Your task to perform on an android device: Open the calendar and show me this week's events? Image 0: 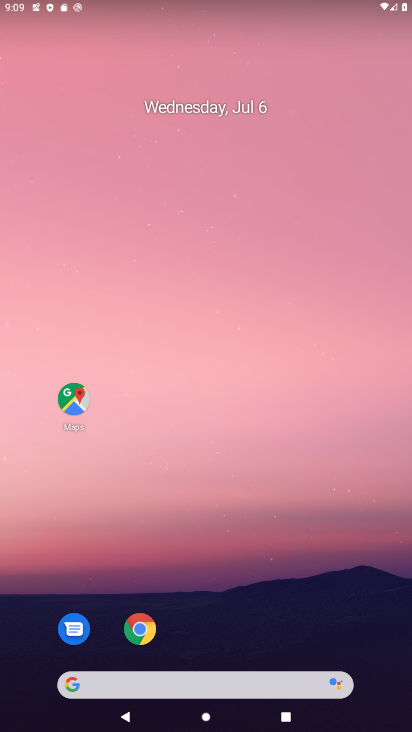
Step 0: click (171, 171)
Your task to perform on an android device: Open the calendar and show me this week's events? Image 1: 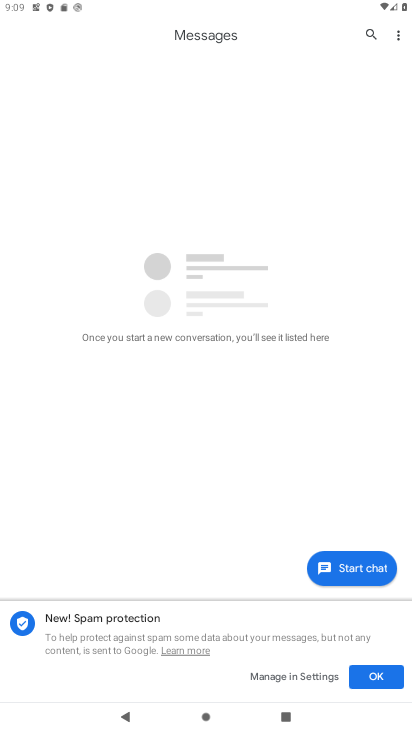
Step 1: press home button
Your task to perform on an android device: Open the calendar and show me this week's events? Image 2: 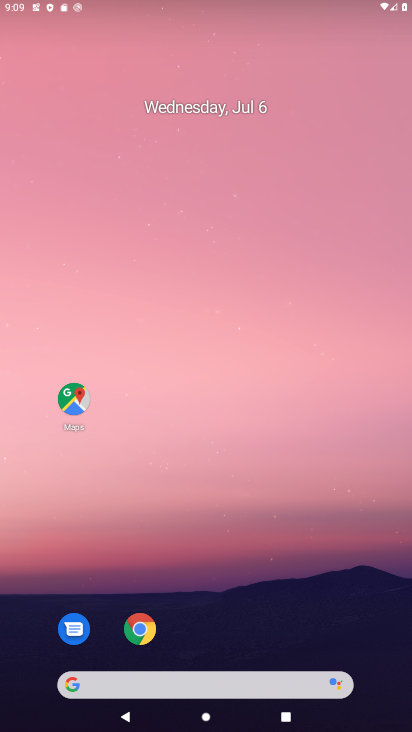
Step 2: drag from (227, 628) to (206, 154)
Your task to perform on an android device: Open the calendar and show me this week's events? Image 3: 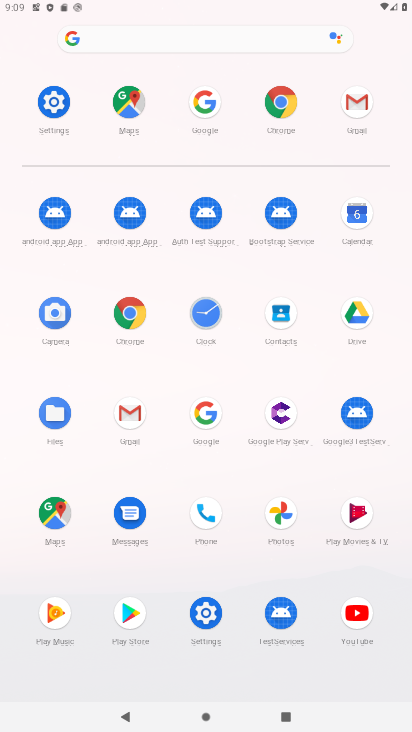
Step 3: click (352, 216)
Your task to perform on an android device: Open the calendar and show me this week's events? Image 4: 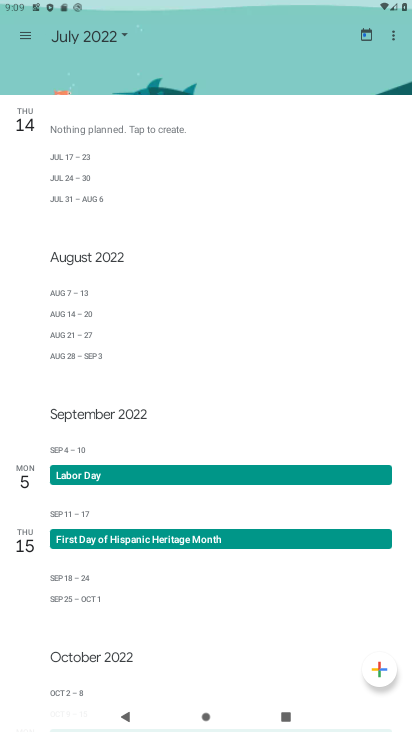
Step 4: click (29, 32)
Your task to perform on an android device: Open the calendar and show me this week's events? Image 5: 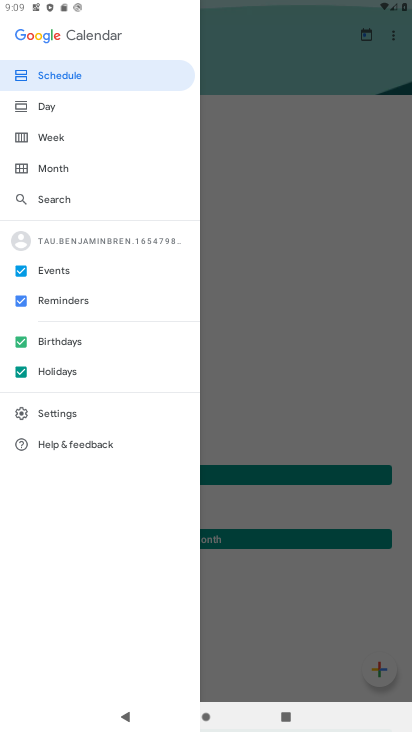
Step 5: click (250, 157)
Your task to perform on an android device: Open the calendar and show me this week's events? Image 6: 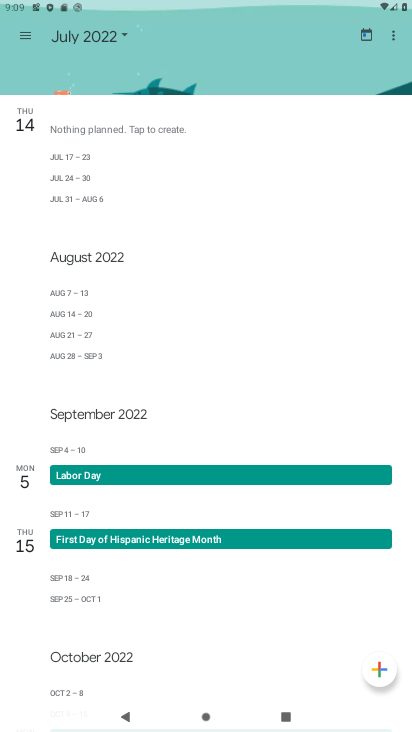
Step 6: click (112, 40)
Your task to perform on an android device: Open the calendar and show me this week's events? Image 7: 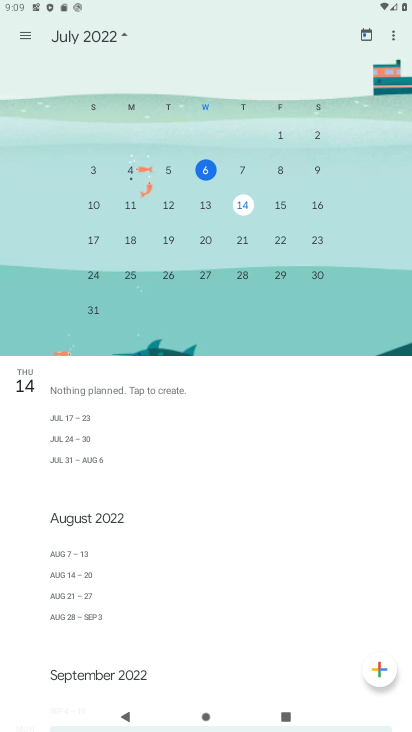
Step 7: click (244, 205)
Your task to perform on an android device: Open the calendar and show me this week's events? Image 8: 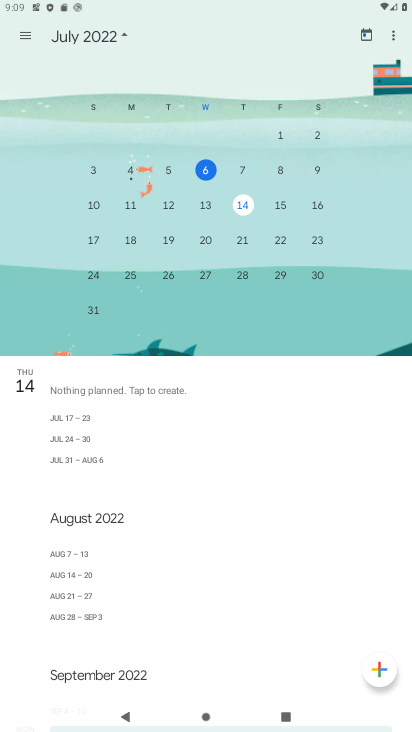
Step 8: task complete